Your task to perform on an android device: clear history in the chrome app Image 0: 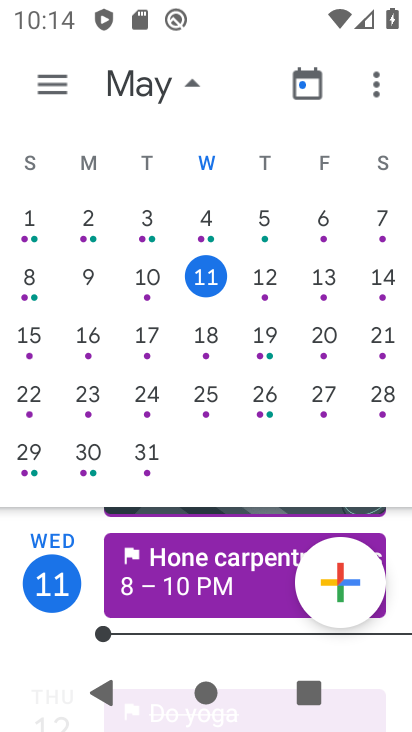
Step 0: press home button
Your task to perform on an android device: clear history in the chrome app Image 1: 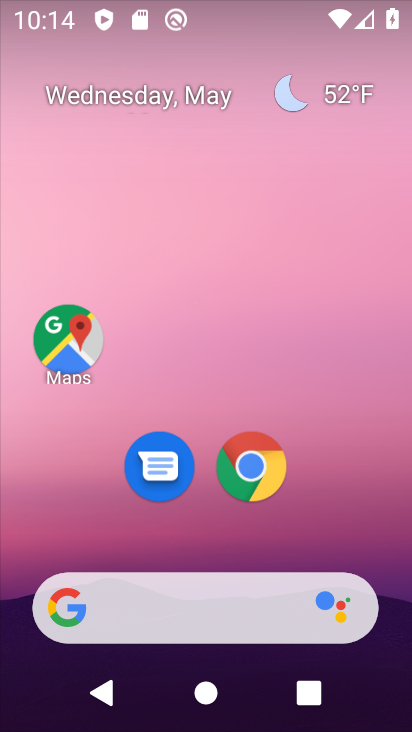
Step 1: click (258, 467)
Your task to perform on an android device: clear history in the chrome app Image 2: 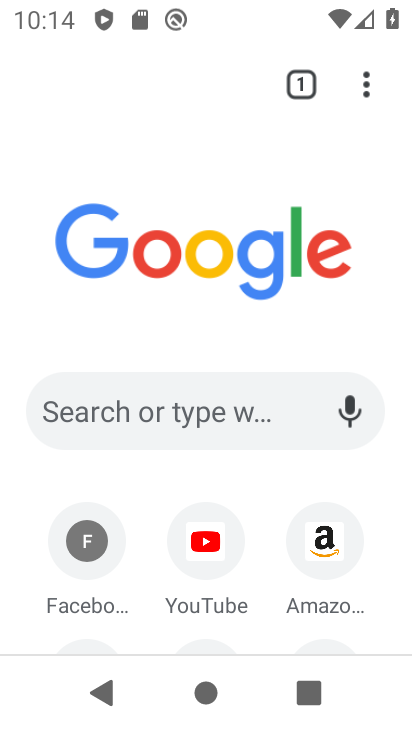
Step 2: click (354, 84)
Your task to perform on an android device: clear history in the chrome app Image 3: 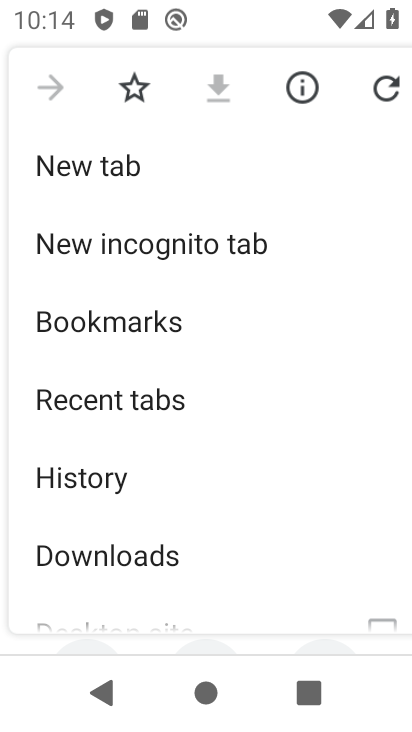
Step 3: click (140, 483)
Your task to perform on an android device: clear history in the chrome app Image 4: 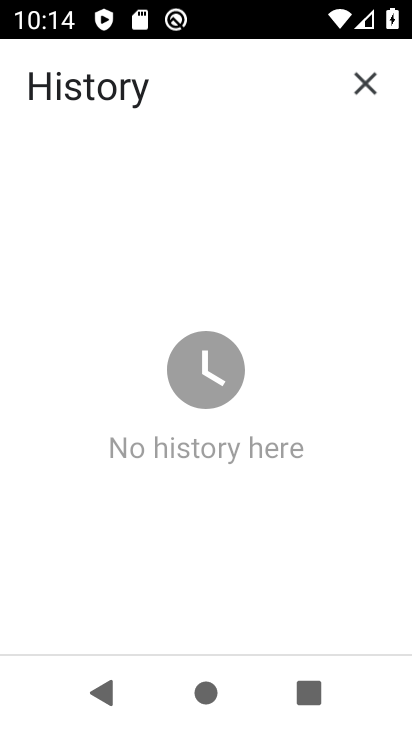
Step 4: task complete